Your task to perform on an android device: turn smart compose on in the gmail app Image 0: 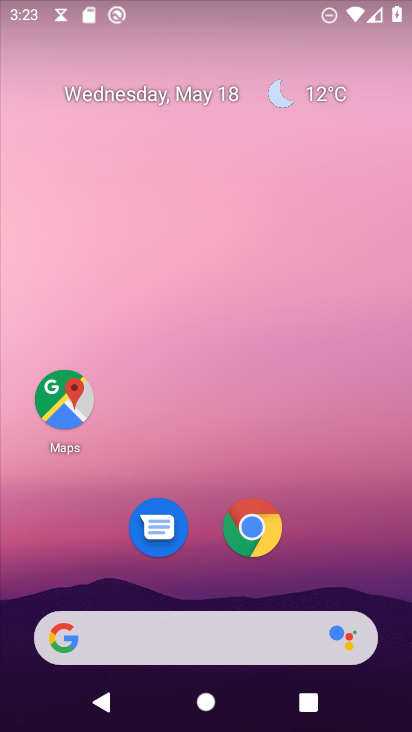
Step 0: drag from (372, 532) to (312, 22)
Your task to perform on an android device: turn smart compose on in the gmail app Image 1: 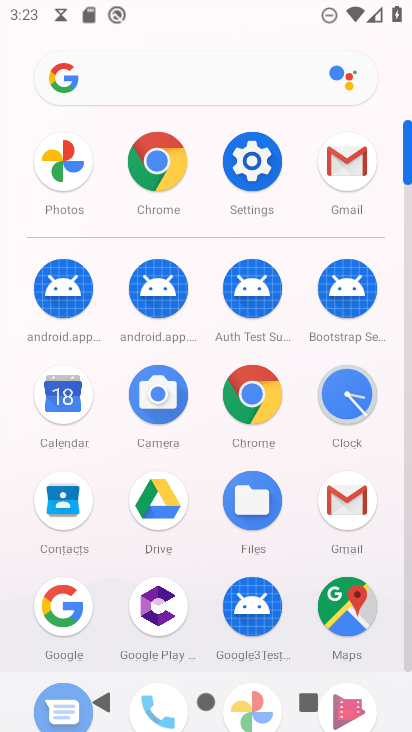
Step 1: click (355, 179)
Your task to perform on an android device: turn smart compose on in the gmail app Image 2: 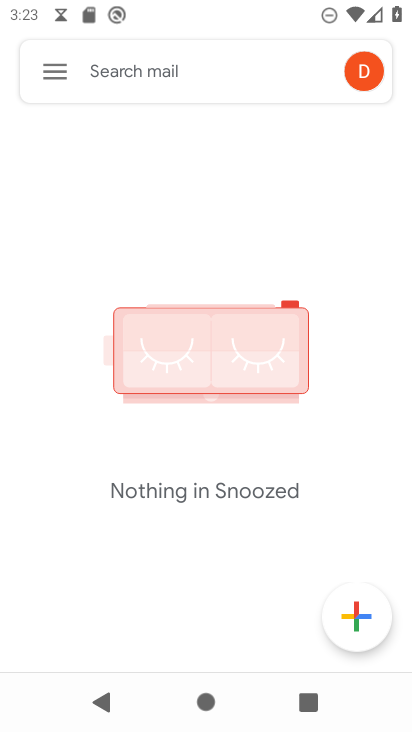
Step 2: click (45, 70)
Your task to perform on an android device: turn smart compose on in the gmail app Image 3: 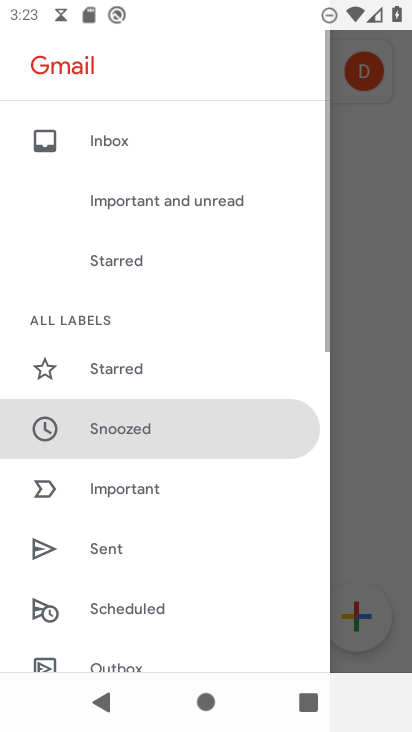
Step 3: drag from (153, 605) to (151, 183)
Your task to perform on an android device: turn smart compose on in the gmail app Image 4: 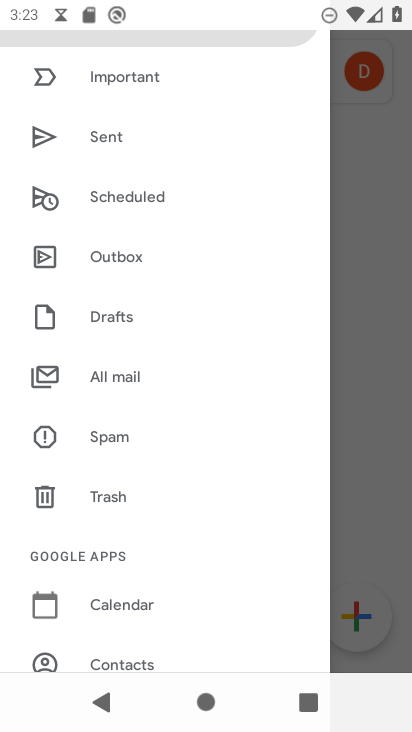
Step 4: drag from (155, 601) to (147, 222)
Your task to perform on an android device: turn smart compose on in the gmail app Image 5: 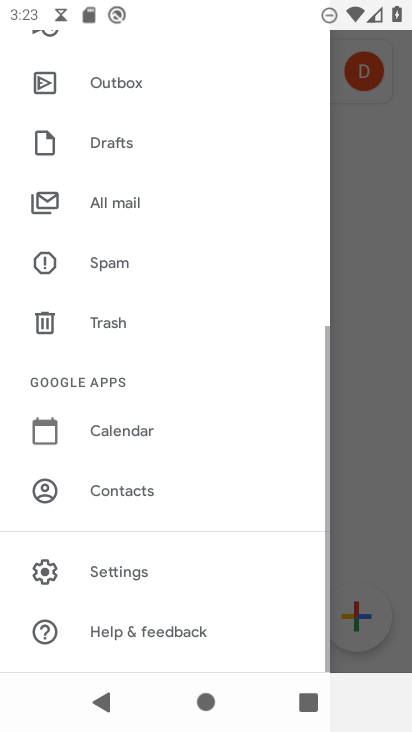
Step 5: click (152, 568)
Your task to perform on an android device: turn smart compose on in the gmail app Image 6: 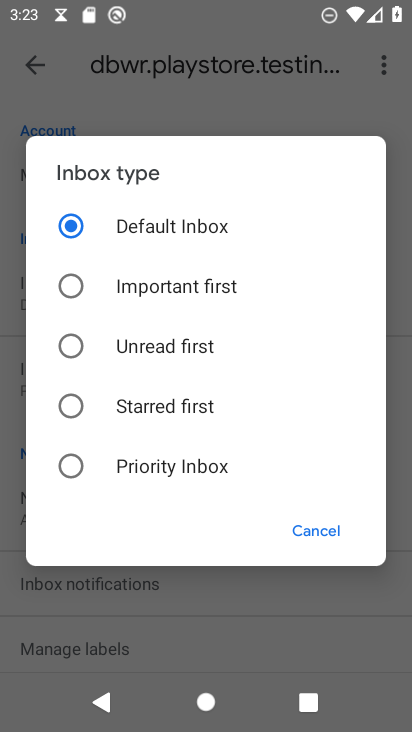
Step 6: click (323, 529)
Your task to perform on an android device: turn smart compose on in the gmail app Image 7: 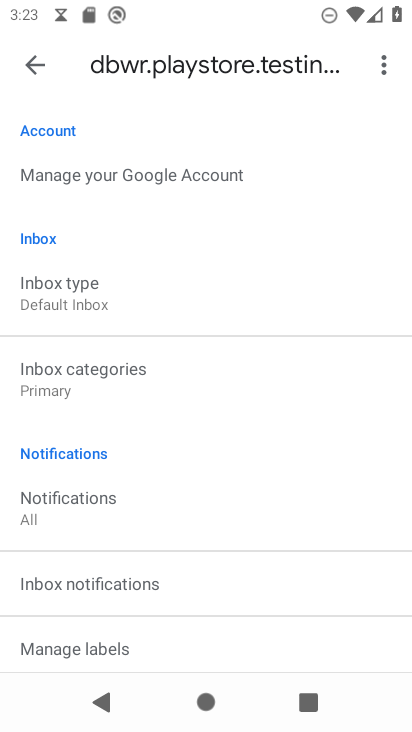
Step 7: task complete